Your task to perform on an android device: Search for vegetarian restaurants on Maps Image 0: 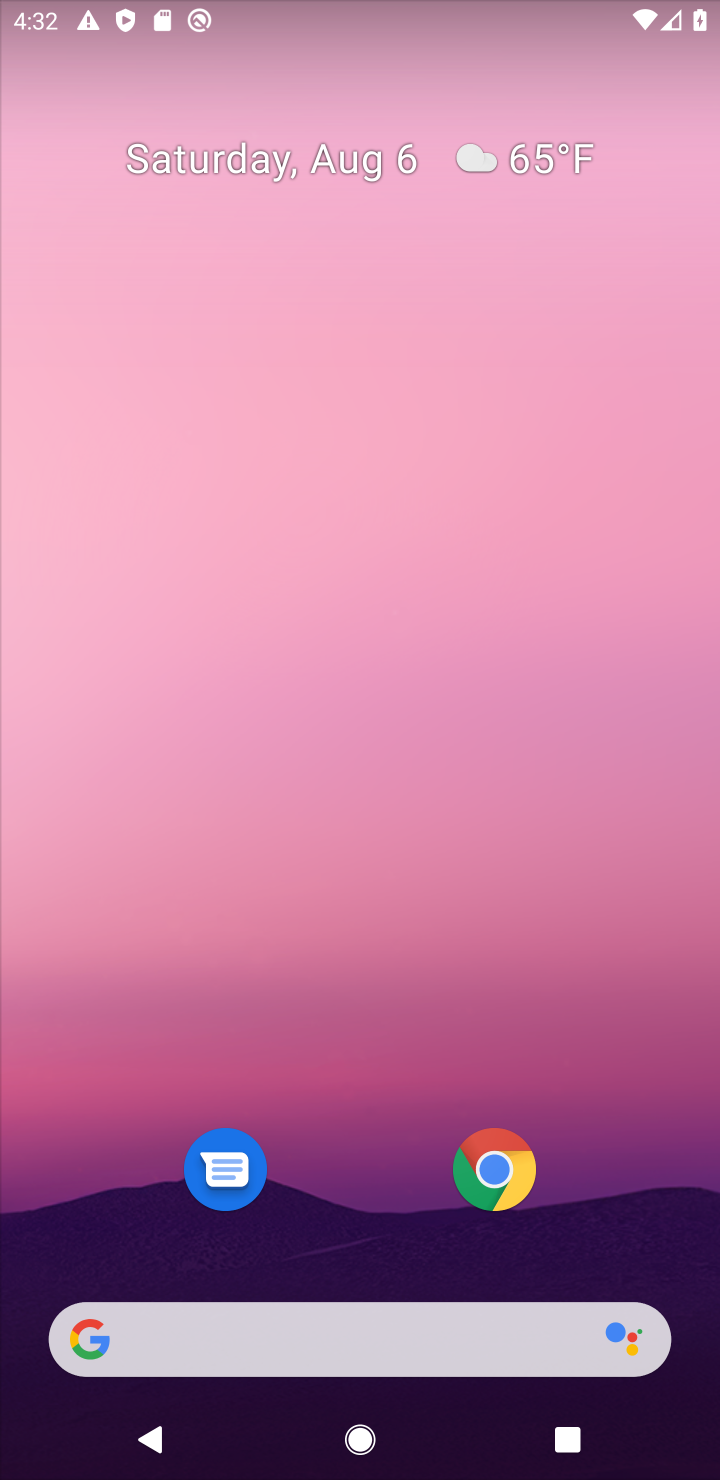
Step 0: drag from (391, 949) to (371, 672)
Your task to perform on an android device: Search for vegetarian restaurants on Maps Image 1: 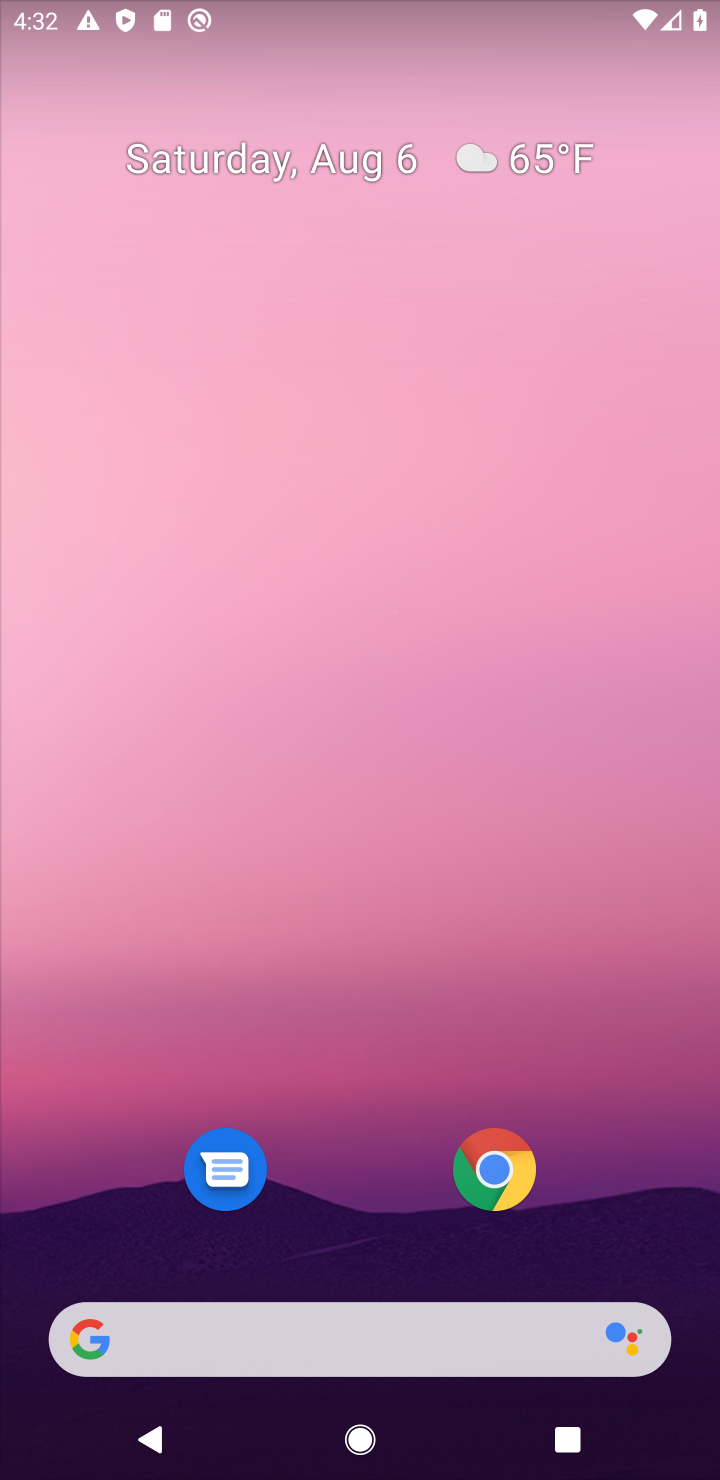
Step 1: drag from (389, 1222) to (289, 194)
Your task to perform on an android device: Search for vegetarian restaurants on Maps Image 2: 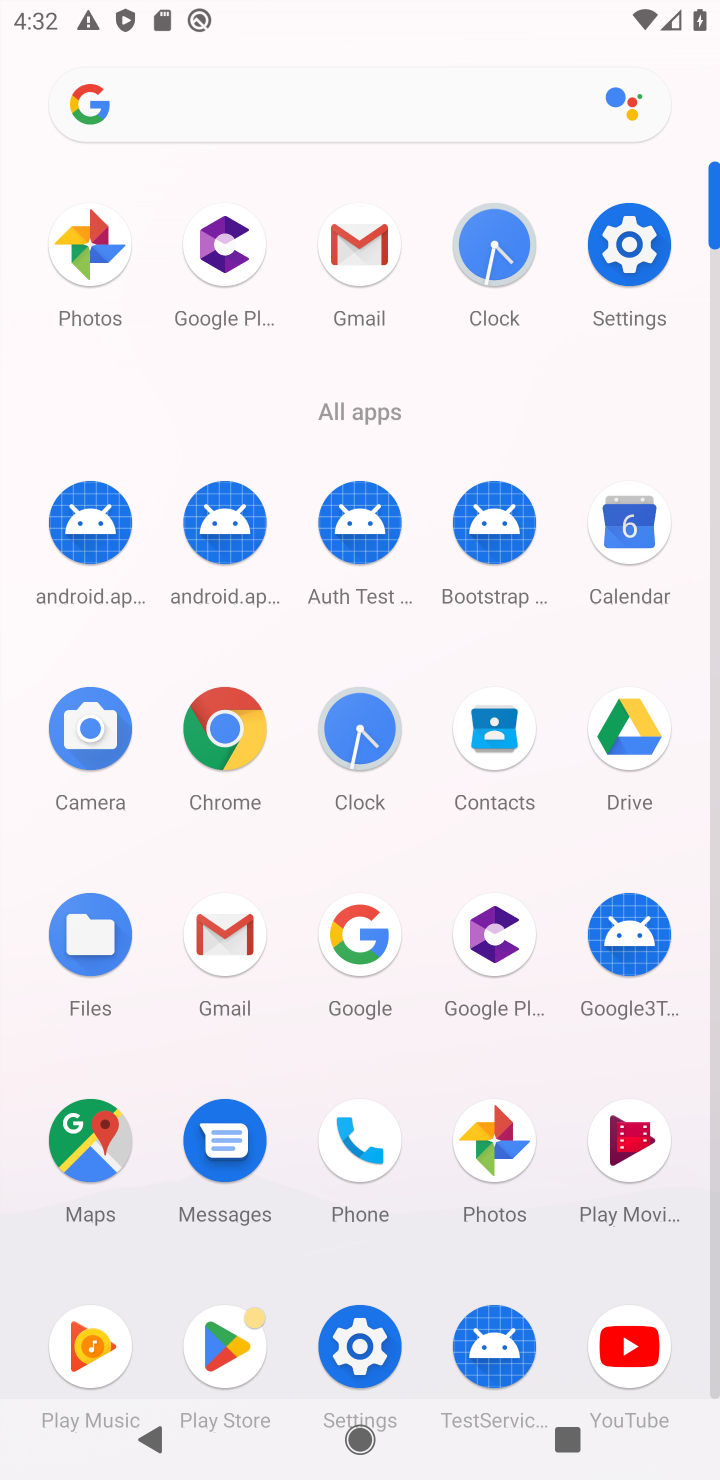
Step 2: click (91, 1142)
Your task to perform on an android device: Search for vegetarian restaurants on Maps Image 3: 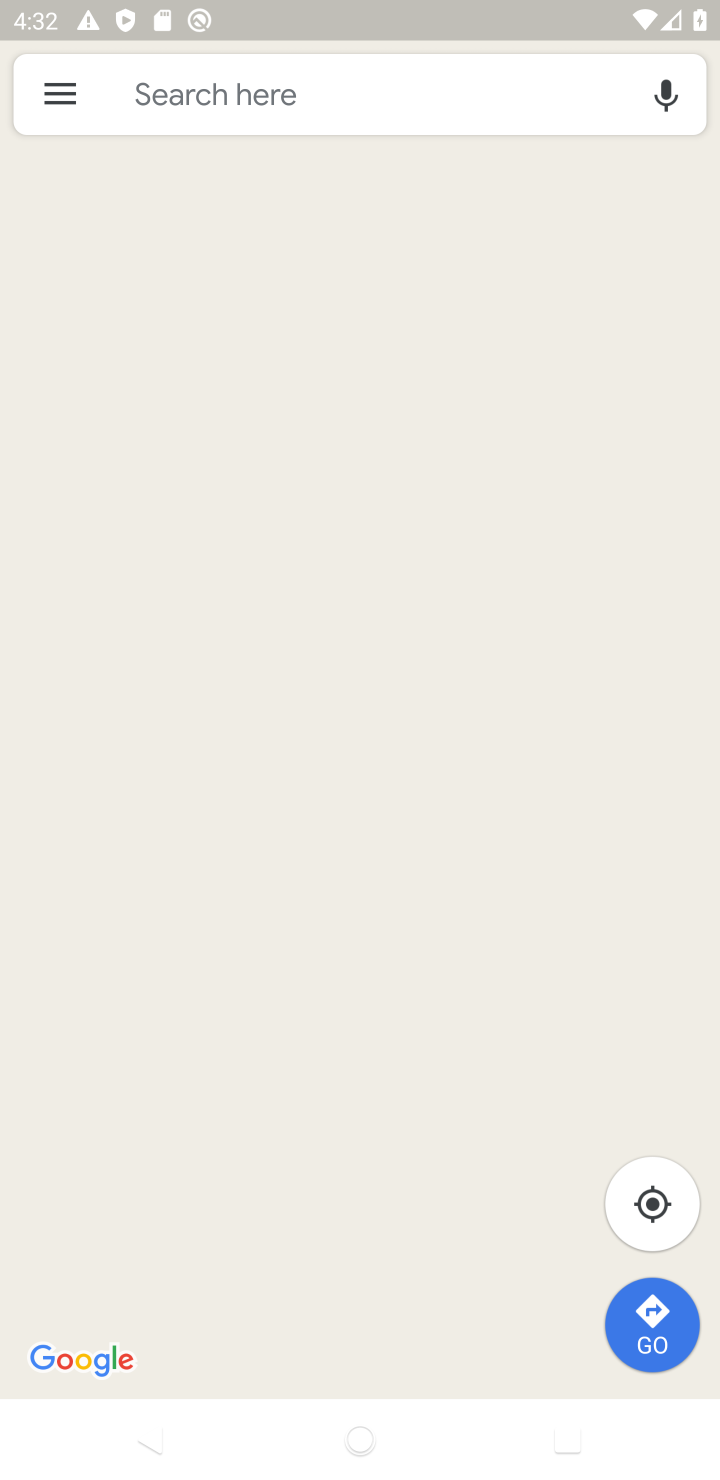
Step 3: click (477, 94)
Your task to perform on an android device: Search for vegetarian restaurants on Maps Image 4: 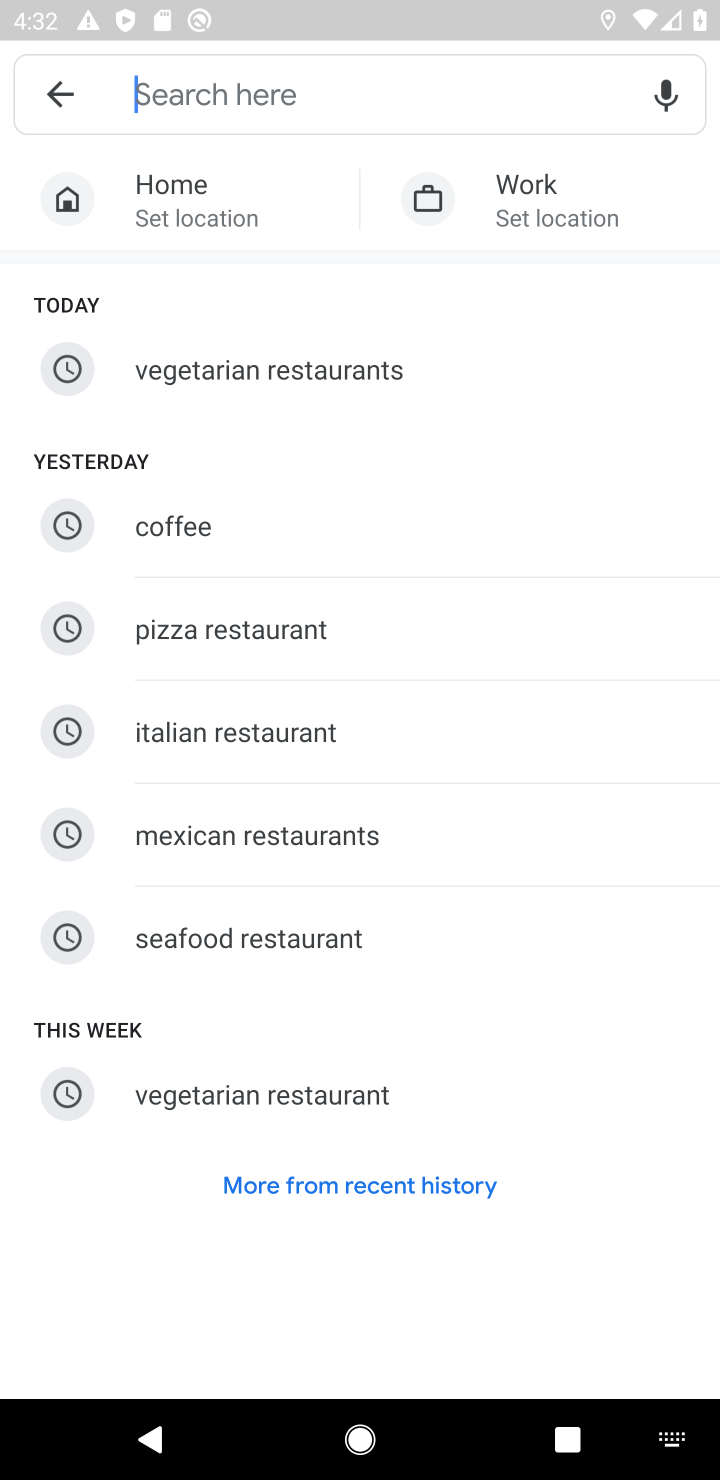
Step 4: type "vegetarian restaurants"
Your task to perform on an android device: Search for vegetarian restaurants on Maps Image 5: 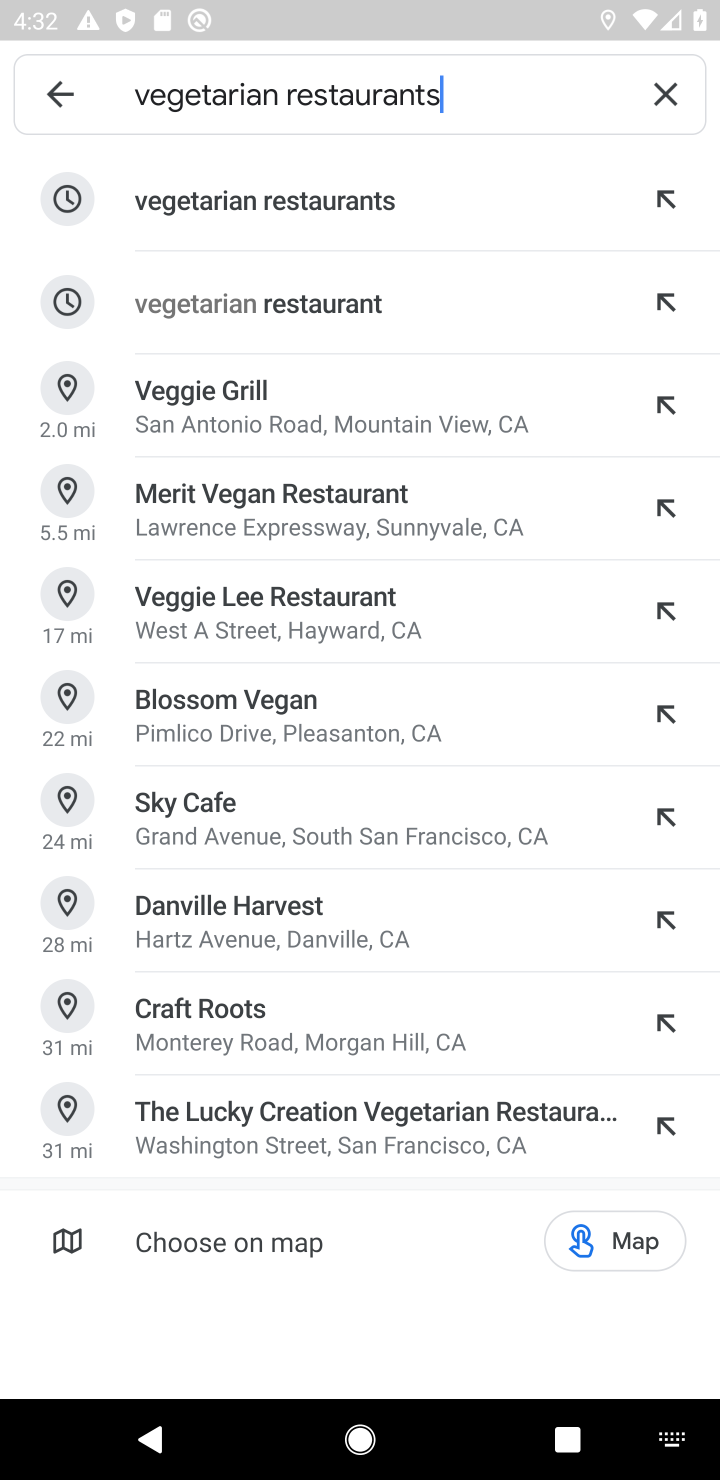
Step 5: click (98, 194)
Your task to perform on an android device: Search for vegetarian restaurants on Maps Image 6: 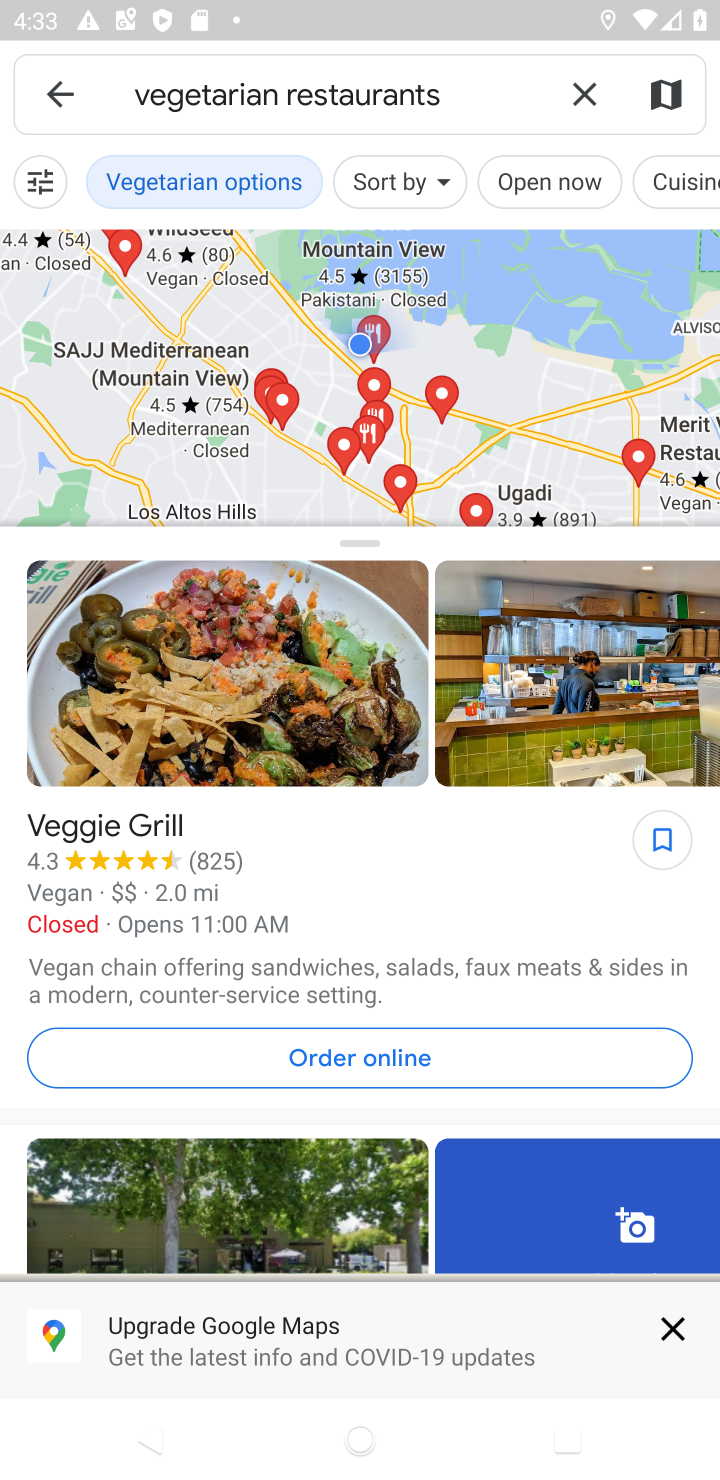
Step 6: task complete